Your task to perform on an android device: check data usage Image 0: 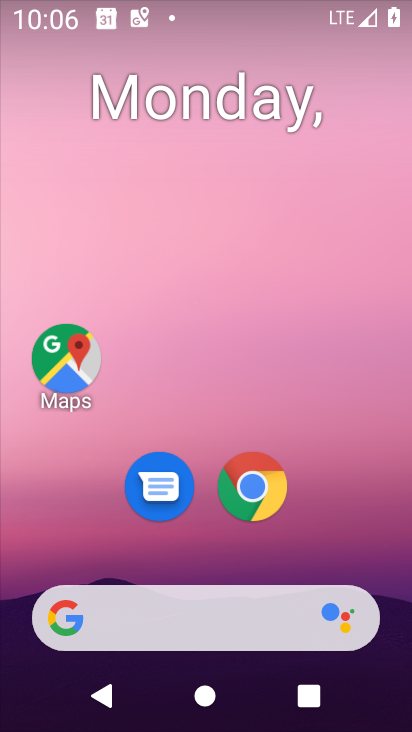
Step 0: drag from (366, 539) to (309, 21)
Your task to perform on an android device: check data usage Image 1: 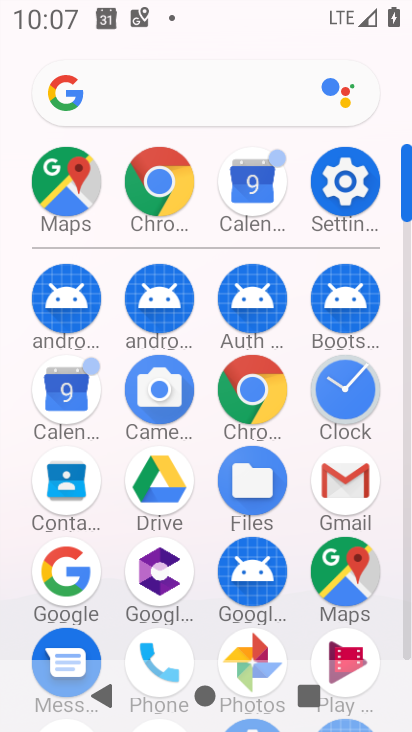
Step 1: click (345, 176)
Your task to perform on an android device: check data usage Image 2: 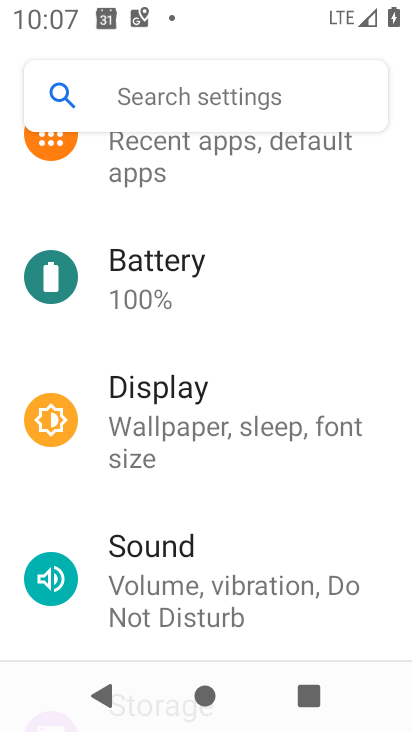
Step 2: drag from (280, 514) to (306, 101)
Your task to perform on an android device: check data usage Image 3: 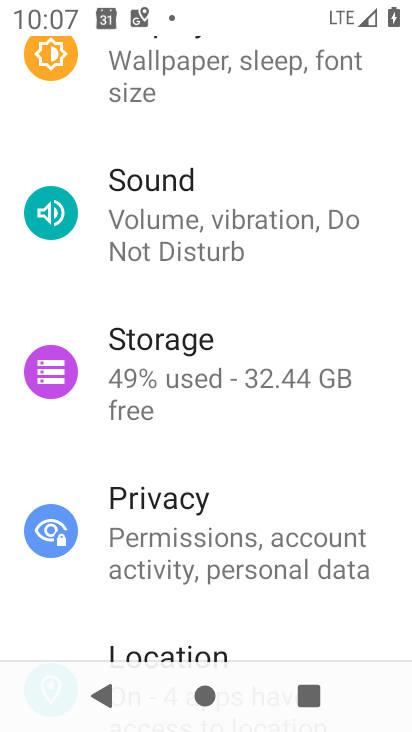
Step 3: drag from (263, 521) to (308, 110)
Your task to perform on an android device: check data usage Image 4: 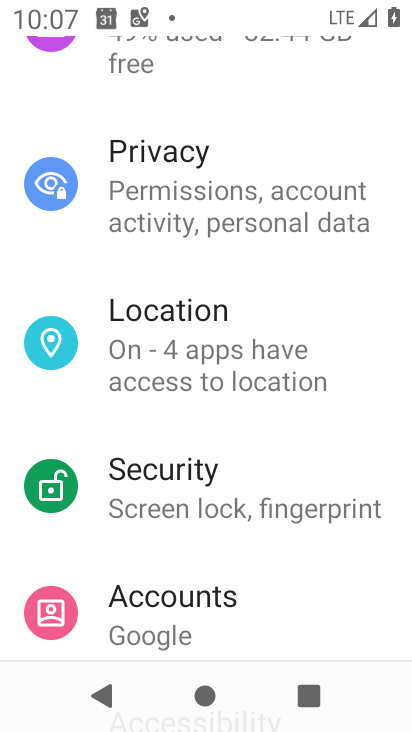
Step 4: drag from (269, 564) to (268, 183)
Your task to perform on an android device: check data usage Image 5: 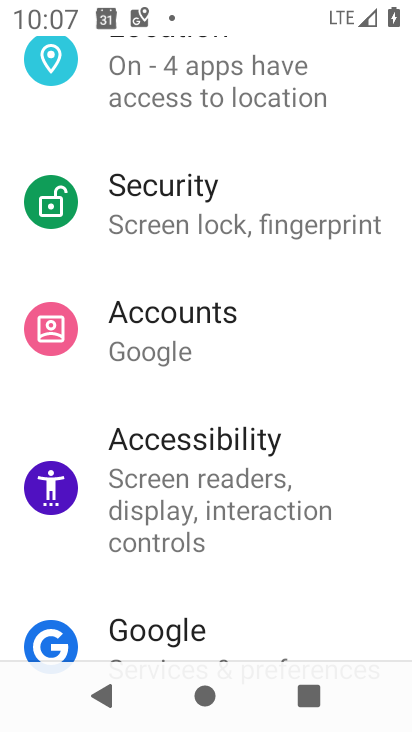
Step 5: drag from (269, 495) to (283, 113)
Your task to perform on an android device: check data usage Image 6: 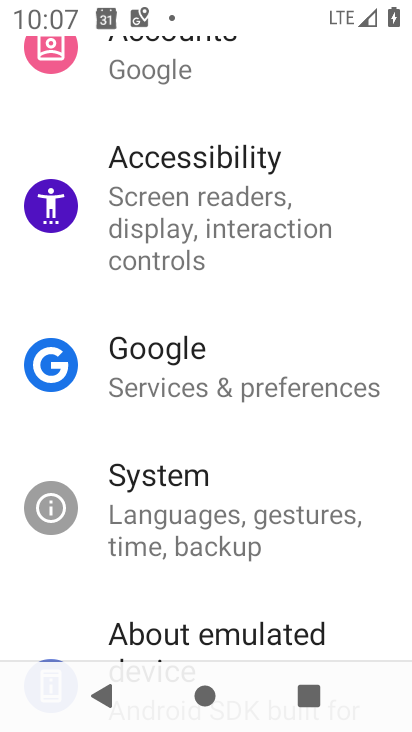
Step 6: drag from (292, 567) to (286, 56)
Your task to perform on an android device: check data usage Image 7: 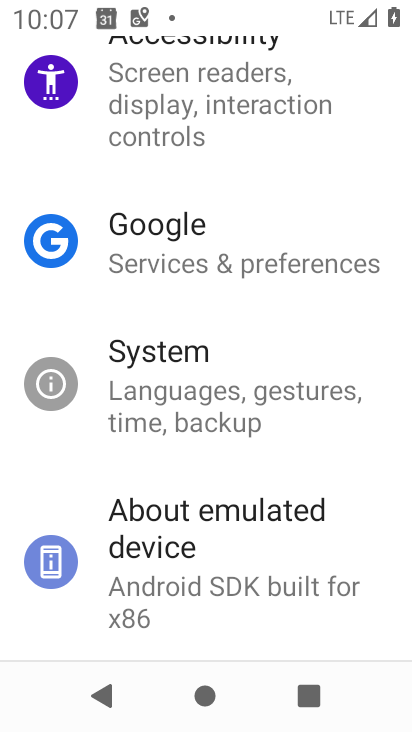
Step 7: drag from (273, 572) to (272, 102)
Your task to perform on an android device: check data usage Image 8: 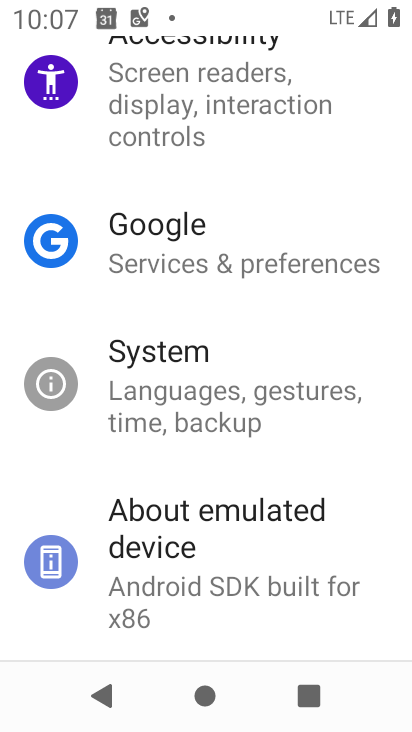
Step 8: drag from (269, 122) to (269, 586)
Your task to perform on an android device: check data usage Image 9: 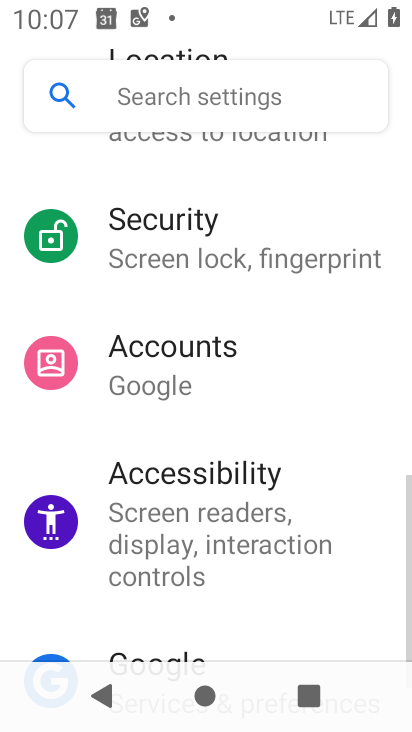
Step 9: drag from (264, 180) to (315, 634)
Your task to perform on an android device: check data usage Image 10: 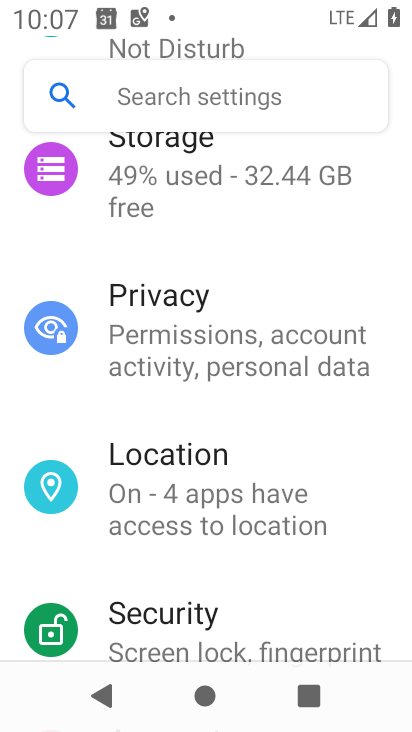
Step 10: drag from (283, 229) to (288, 586)
Your task to perform on an android device: check data usage Image 11: 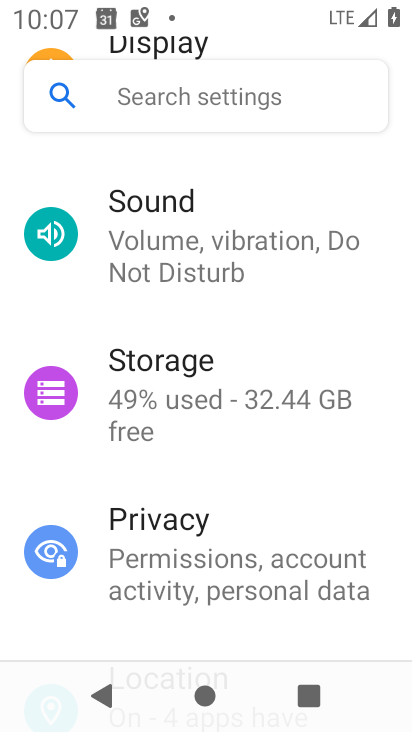
Step 11: drag from (270, 201) to (296, 599)
Your task to perform on an android device: check data usage Image 12: 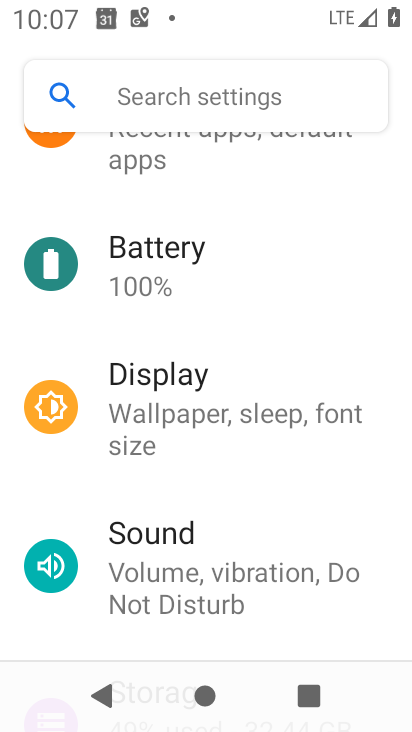
Step 12: drag from (301, 236) to (301, 522)
Your task to perform on an android device: check data usage Image 13: 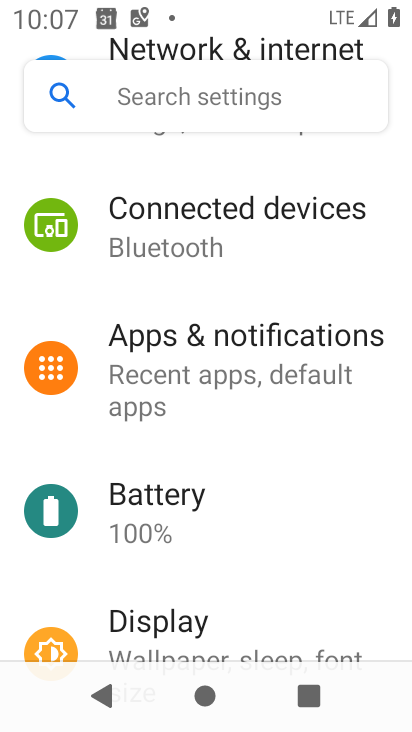
Step 13: drag from (297, 189) to (293, 631)
Your task to perform on an android device: check data usage Image 14: 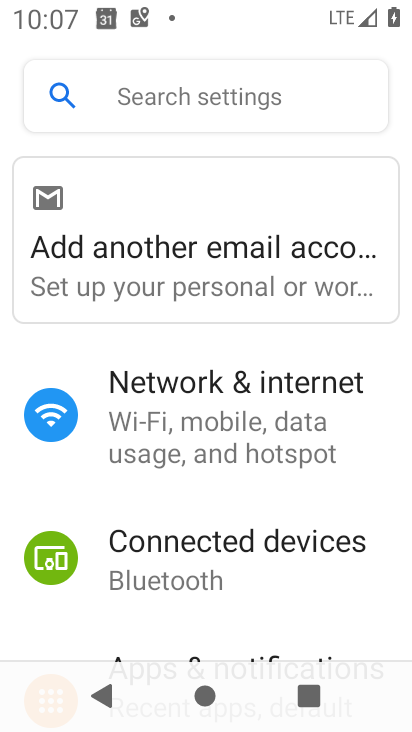
Step 14: click (251, 429)
Your task to perform on an android device: check data usage Image 15: 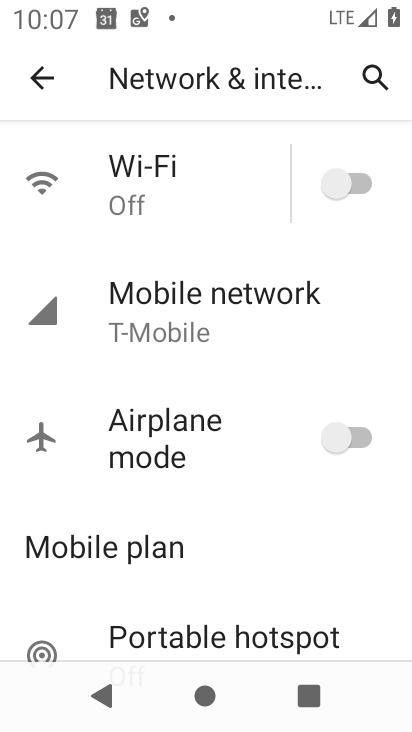
Step 15: drag from (200, 530) to (200, 211)
Your task to perform on an android device: check data usage Image 16: 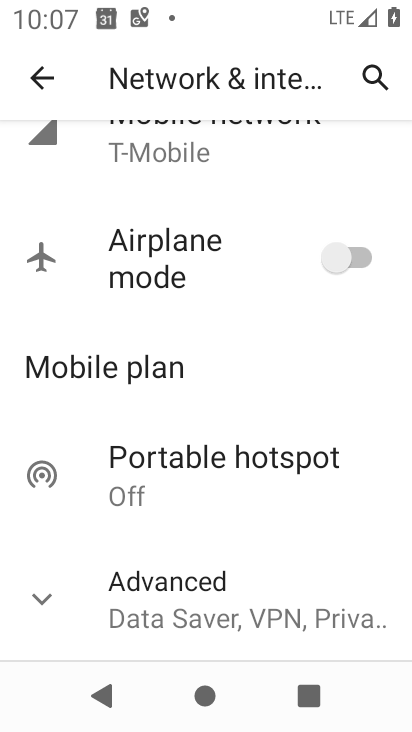
Step 16: drag from (208, 152) to (194, 508)
Your task to perform on an android device: check data usage Image 17: 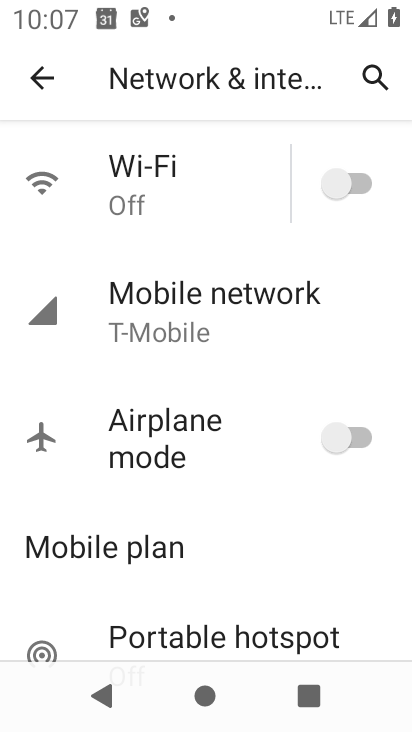
Step 17: click (186, 311)
Your task to perform on an android device: check data usage Image 18: 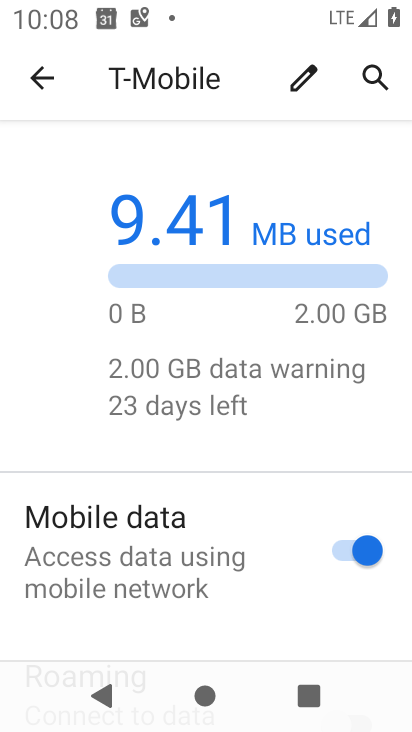
Step 18: task complete